Your task to perform on an android device: Search for Mexican restaurants on Maps Image 0: 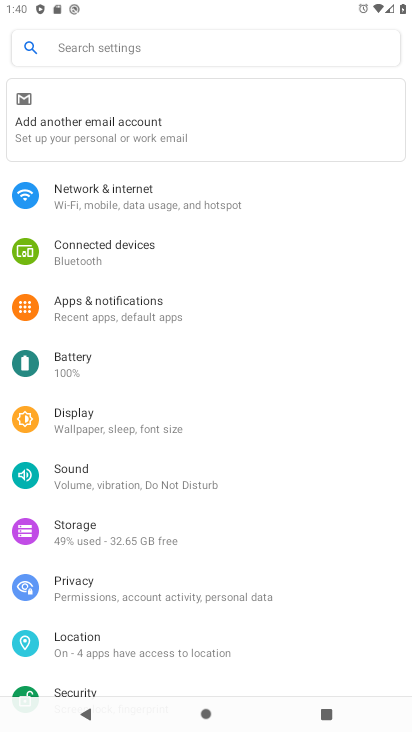
Step 0: press home button
Your task to perform on an android device: Search for Mexican restaurants on Maps Image 1: 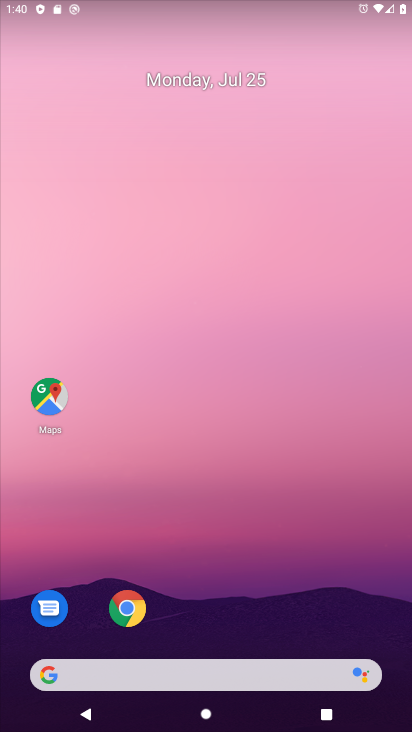
Step 1: drag from (310, 590) to (317, 56)
Your task to perform on an android device: Search for Mexican restaurants on Maps Image 2: 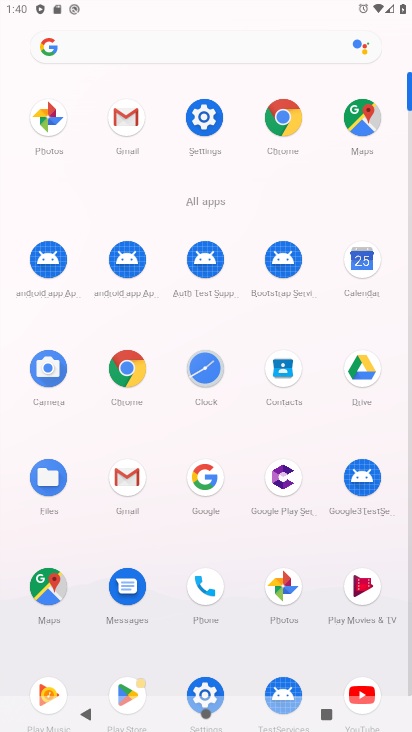
Step 2: click (367, 117)
Your task to perform on an android device: Search for Mexican restaurants on Maps Image 3: 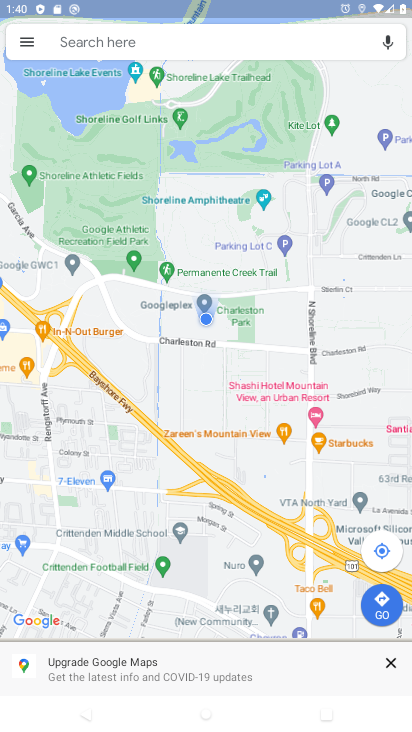
Step 3: click (180, 44)
Your task to perform on an android device: Search for Mexican restaurants on Maps Image 4: 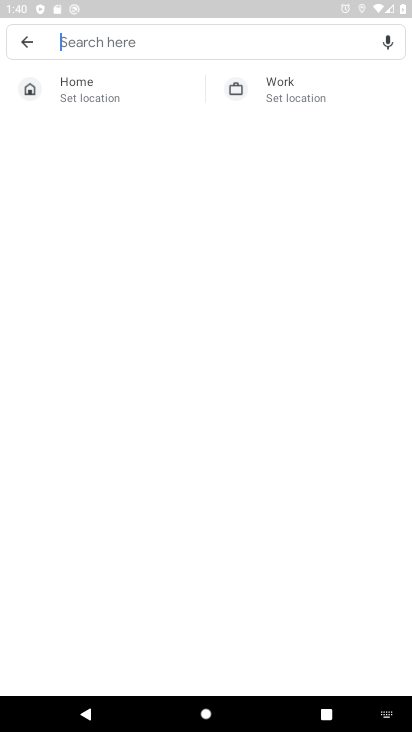
Step 4: type "mexican restaurants"
Your task to perform on an android device: Search for Mexican restaurants on Maps Image 5: 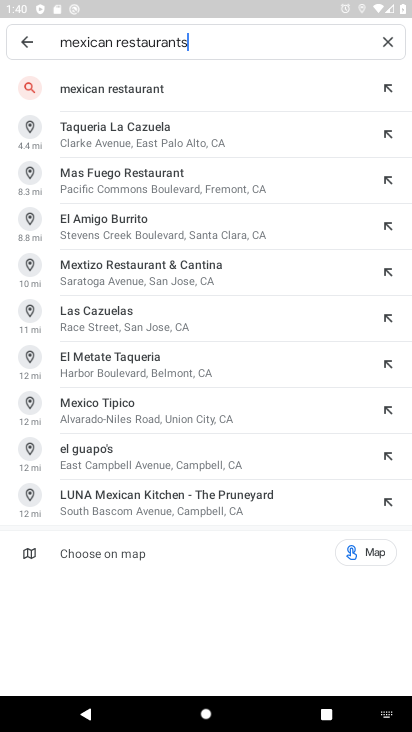
Step 5: press enter
Your task to perform on an android device: Search for Mexican restaurants on Maps Image 6: 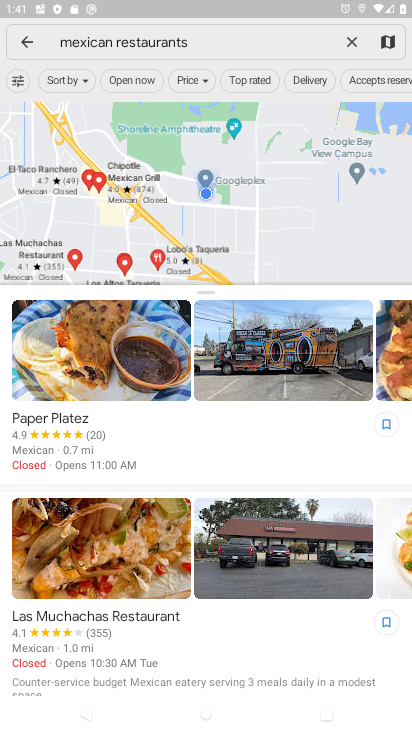
Step 6: task complete